Your task to perform on an android device: turn vacation reply on in the gmail app Image 0: 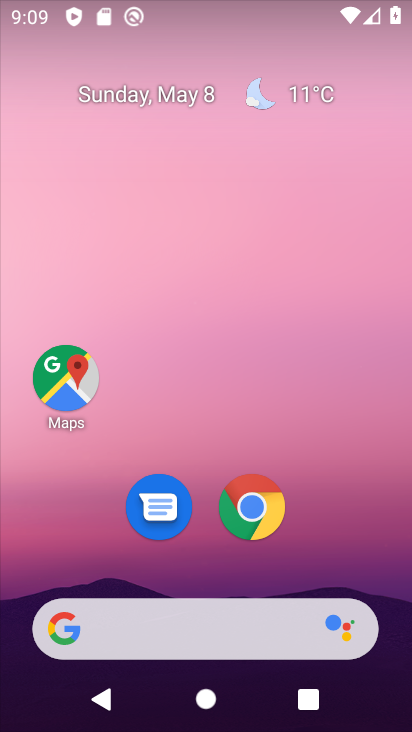
Step 0: drag from (144, 590) to (220, 12)
Your task to perform on an android device: turn vacation reply on in the gmail app Image 1: 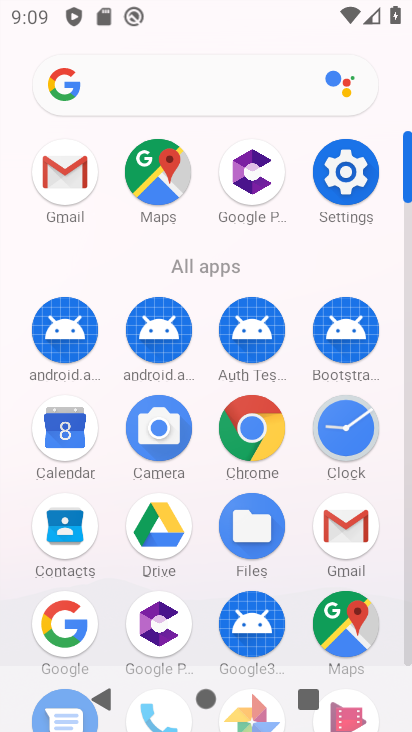
Step 1: click (335, 534)
Your task to perform on an android device: turn vacation reply on in the gmail app Image 2: 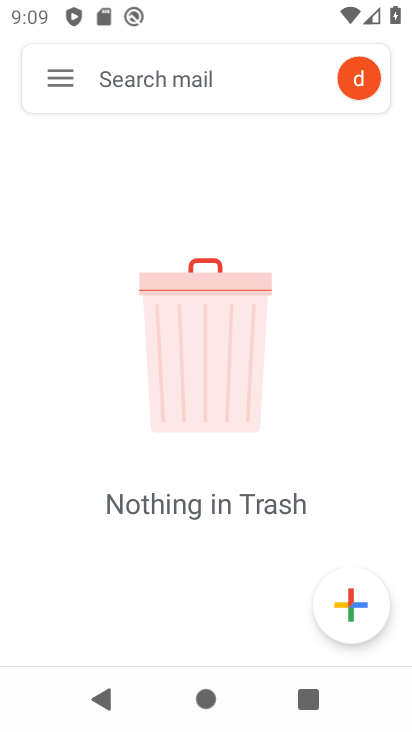
Step 2: click (63, 83)
Your task to perform on an android device: turn vacation reply on in the gmail app Image 3: 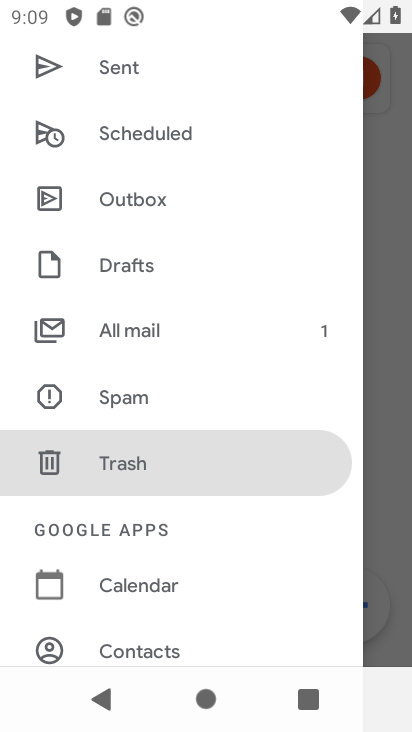
Step 3: drag from (220, 594) to (246, 314)
Your task to perform on an android device: turn vacation reply on in the gmail app Image 4: 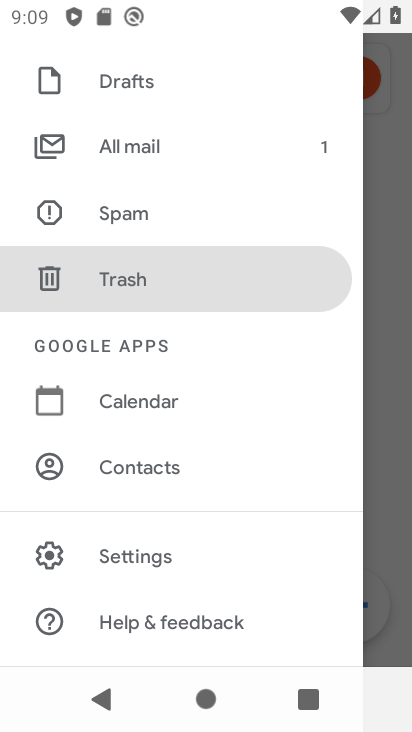
Step 4: click (187, 551)
Your task to perform on an android device: turn vacation reply on in the gmail app Image 5: 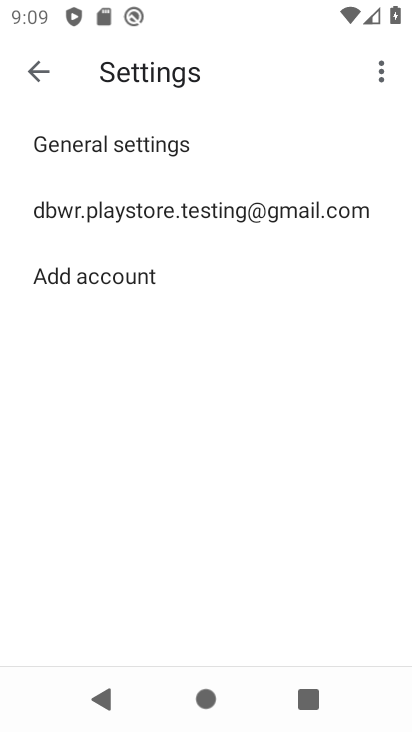
Step 5: click (331, 225)
Your task to perform on an android device: turn vacation reply on in the gmail app Image 6: 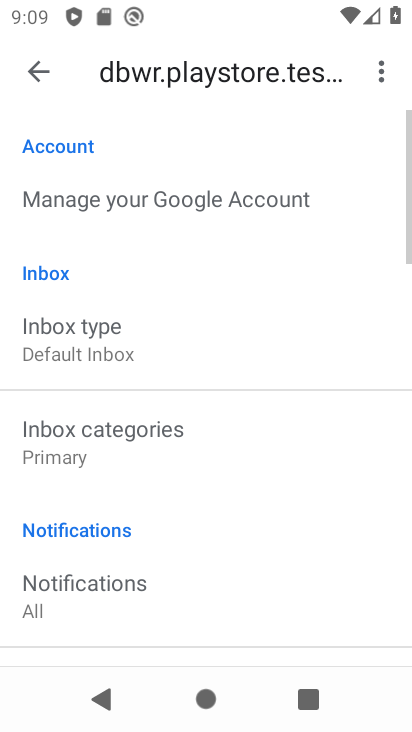
Step 6: drag from (288, 577) to (321, 392)
Your task to perform on an android device: turn vacation reply on in the gmail app Image 7: 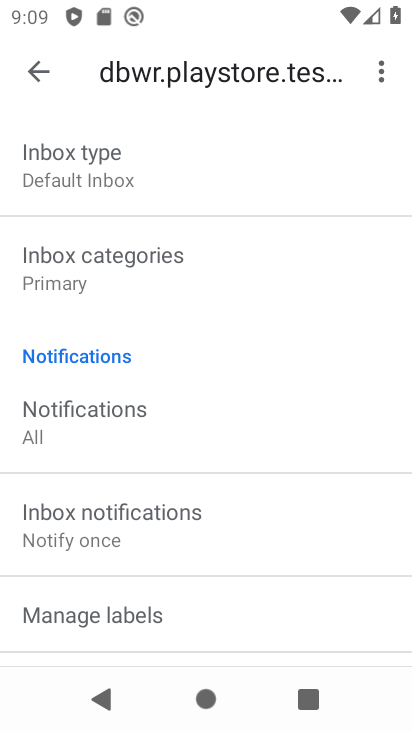
Step 7: drag from (294, 534) to (344, 298)
Your task to perform on an android device: turn vacation reply on in the gmail app Image 8: 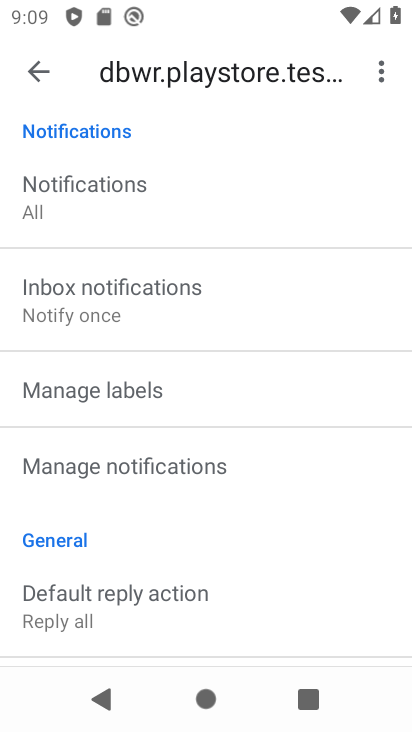
Step 8: drag from (251, 571) to (271, 484)
Your task to perform on an android device: turn vacation reply on in the gmail app Image 9: 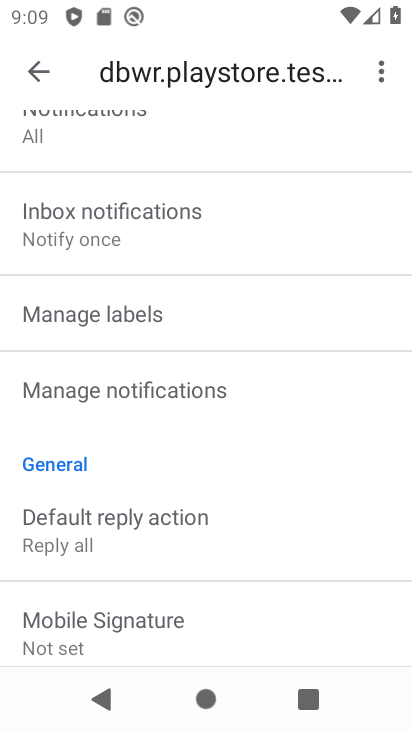
Step 9: drag from (260, 533) to (260, 571)
Your task to perform on an android device: turn vacation reply on in the gmail app Image 10: 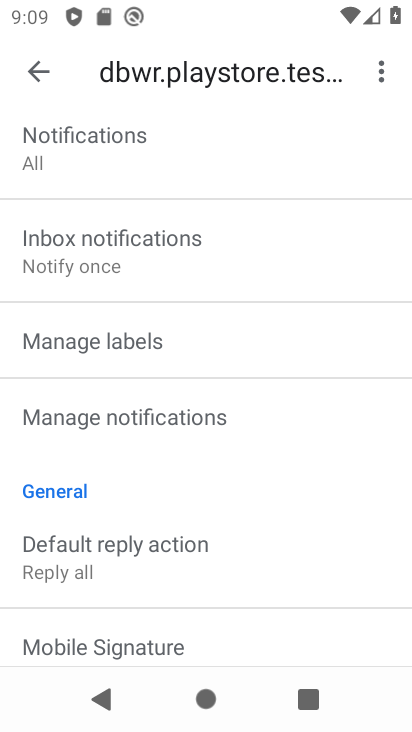
Step 10: drag from (260, 571) to (327, 267)
Your task to perform on an android device: turn vacation reply on in the gmail app Image 11: 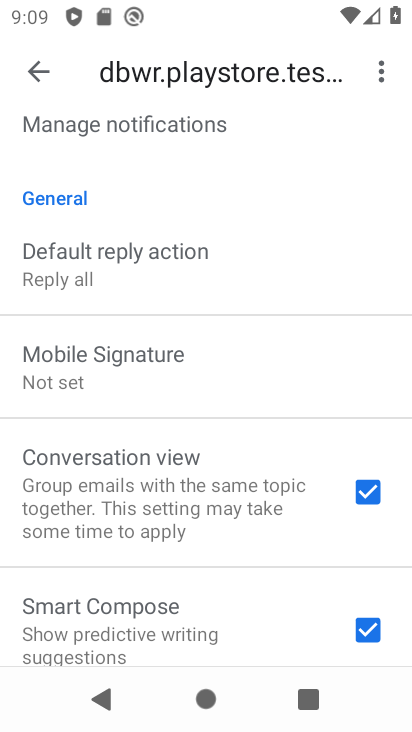
Step 11: drag from (251, 559) to (325, 14)
Your task to perform on an android device: turn vacation reply on in the gmail app Image 12: 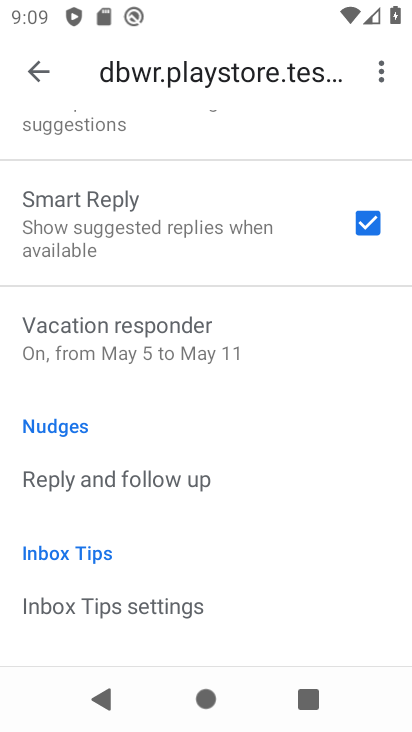
Step 12: click (236, 337)
Your task to perform on an android device: turn vacation reply on in the gmail app Image 13: 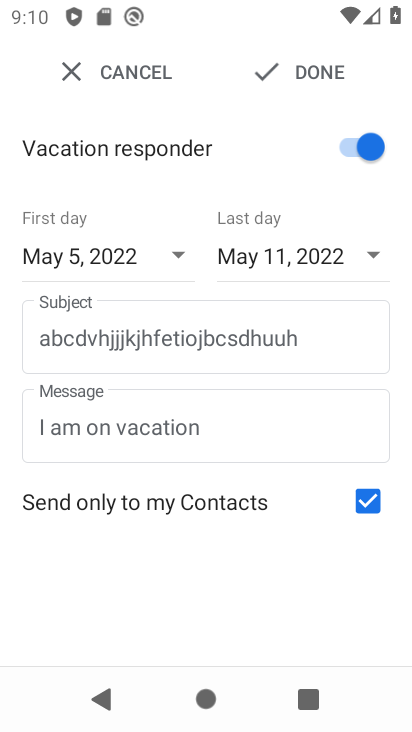
Step 13: task complete